Your task to perform on an android device: turn off javascript in the chrome app Image 0: 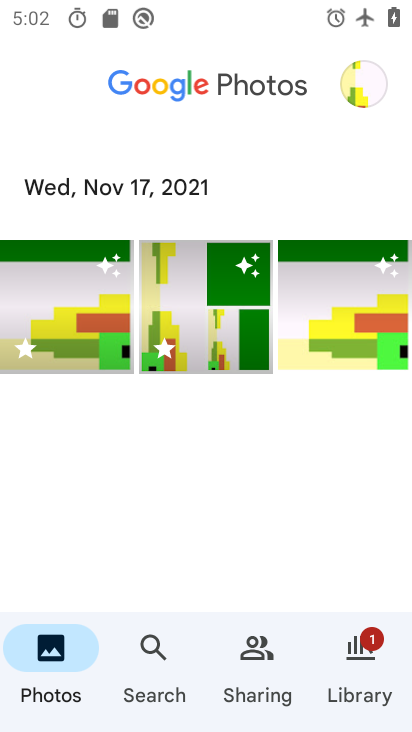
Step 0: drag from (163, 639) to (188, 379)
Your task to perform on an android device: turn off javascript in the chrome app Image 1: 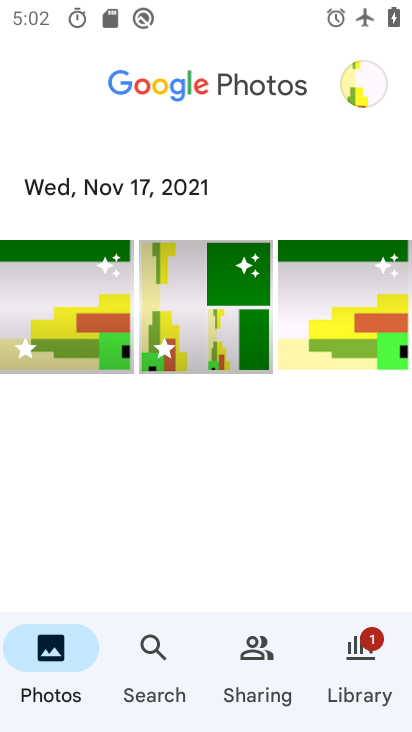
Step 1: press home button
Your task to perform on an android device: turn off javascript in the chrome app Image 2: 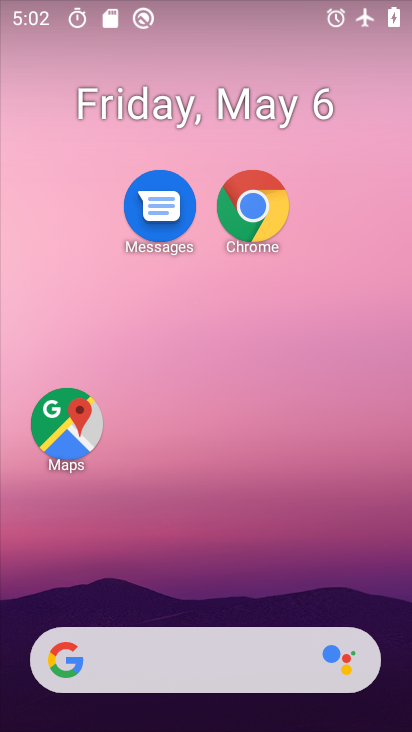
Step 2: click (246, 217)
Your task to perform on an android device: turn off javascript in the chrome app Image 3: 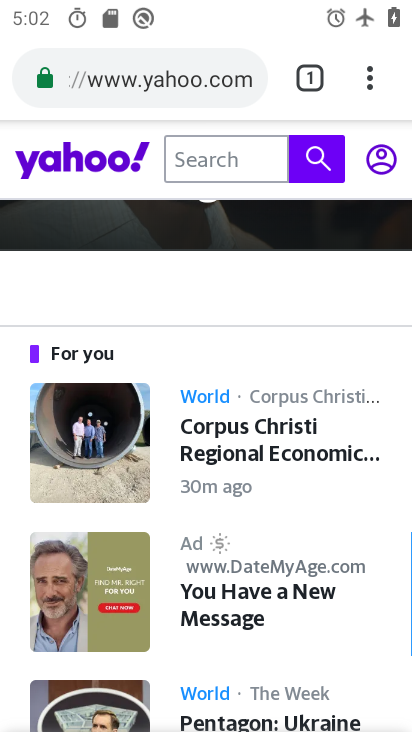
Step 3: click (369, 82)
Your task to perform on an android device: turn off javascript in the chrome app Image 4: 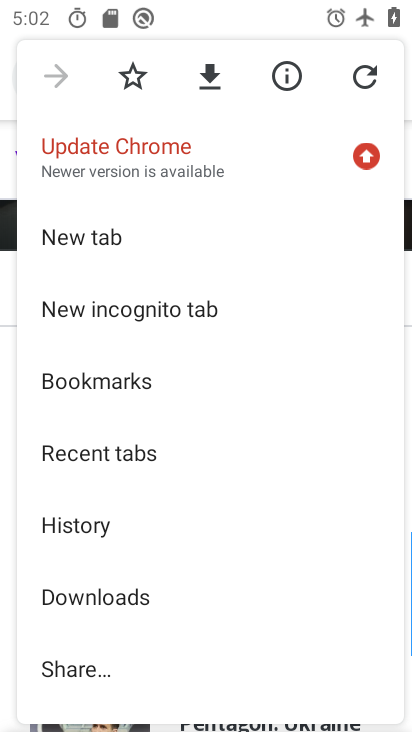
Step 4: drag from (183, 646) to (177, 320)
Your task to perform on an android device: turn off javascript in the chrome app Image 5: 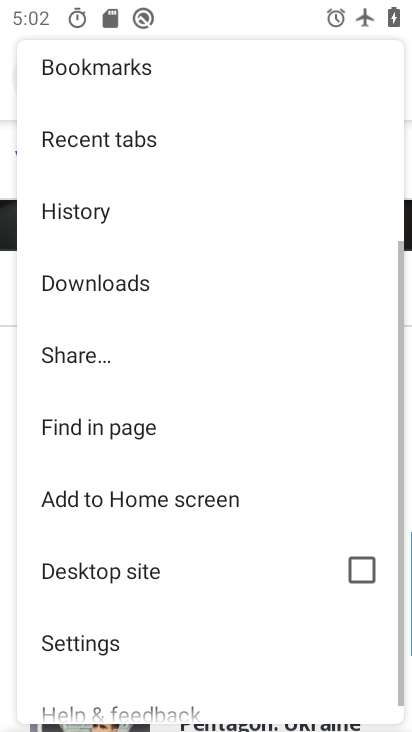
Step 5: click (96, 643)
Your task to perform on an android device: turn off javascript in the chrome app Image 6: 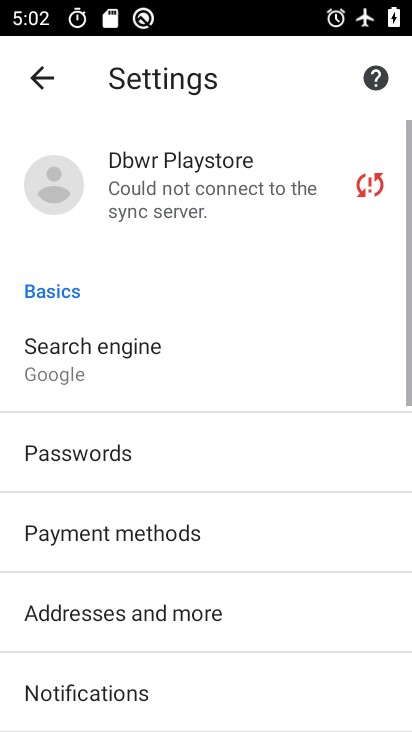
Step 6: drag from (115, 671) to (100, 340)
Your task to perform on an android device: turn off javascript in the chrome app Image 7: 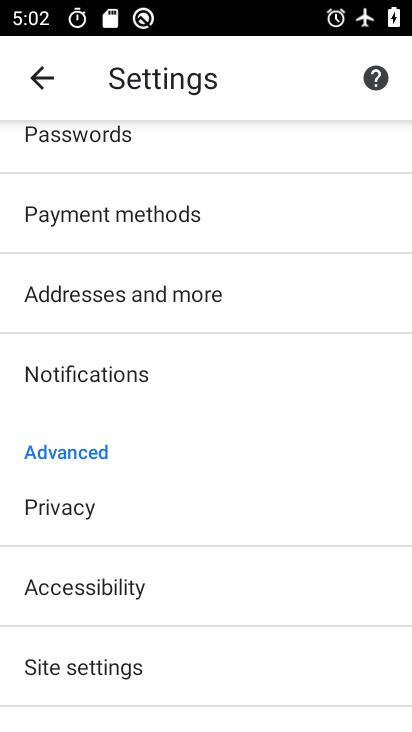
Step 7: drag from (150, 657) to (164, 334)
Your task to perform on an android device: turn off javascript in the chrome app Image 8: 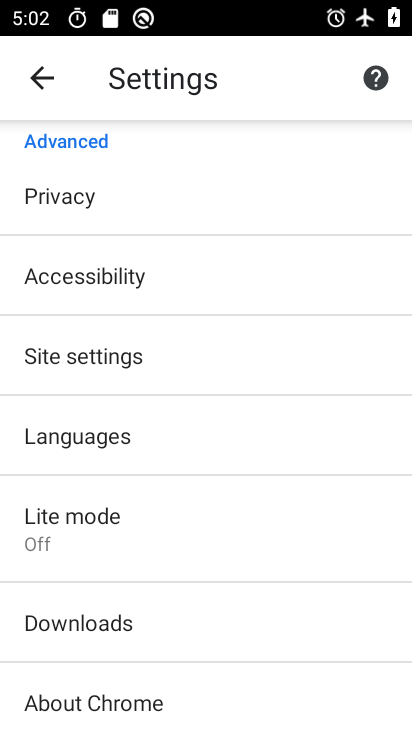
Step 8: click (62, 363)
Your task to perform on an android device: turn off javascript in the chrome app Image 9: 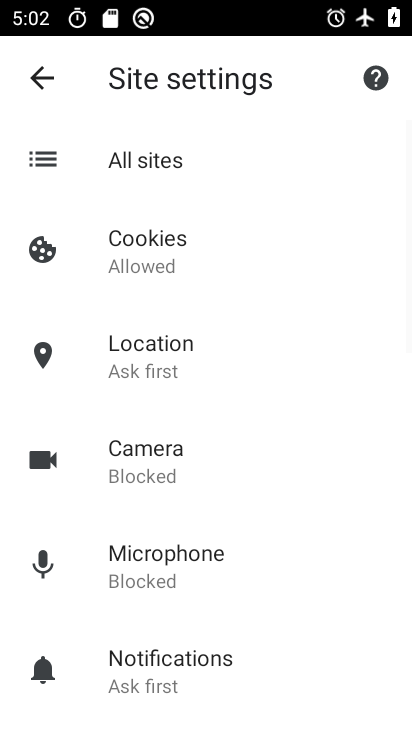
Step 9: drag from (138, 704) to (98, 375)
Your task to perform on an android device: turn off javascript in the chrome app Image 10: 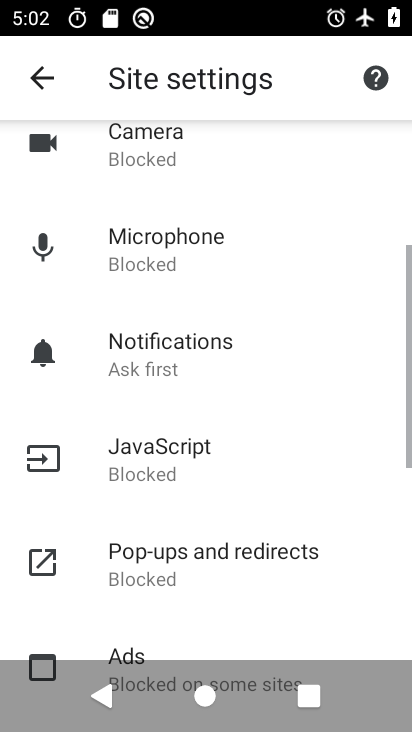
Step 10: drag from (177, 631) to (198, 358)
Your task to perform on an android device: turn off javascript in the chrome app Image 11: 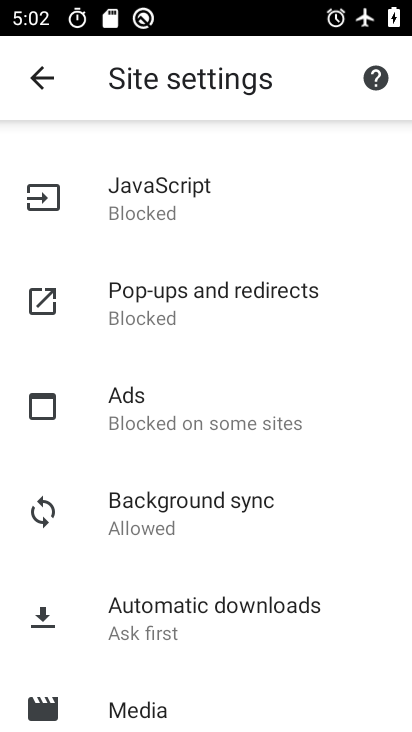
Step 11: click (168, 195)
Your task to perform on an android device: turn off javascript in the chrome app Image 12: 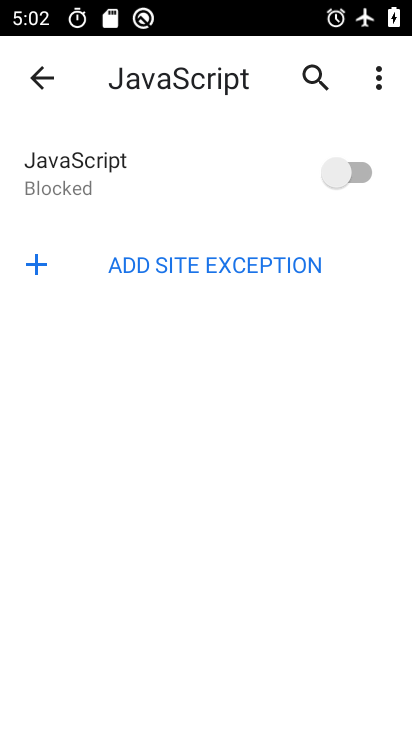
Step 12: task complete